Your task to perform on an android device: What is the recent news? Image 0: 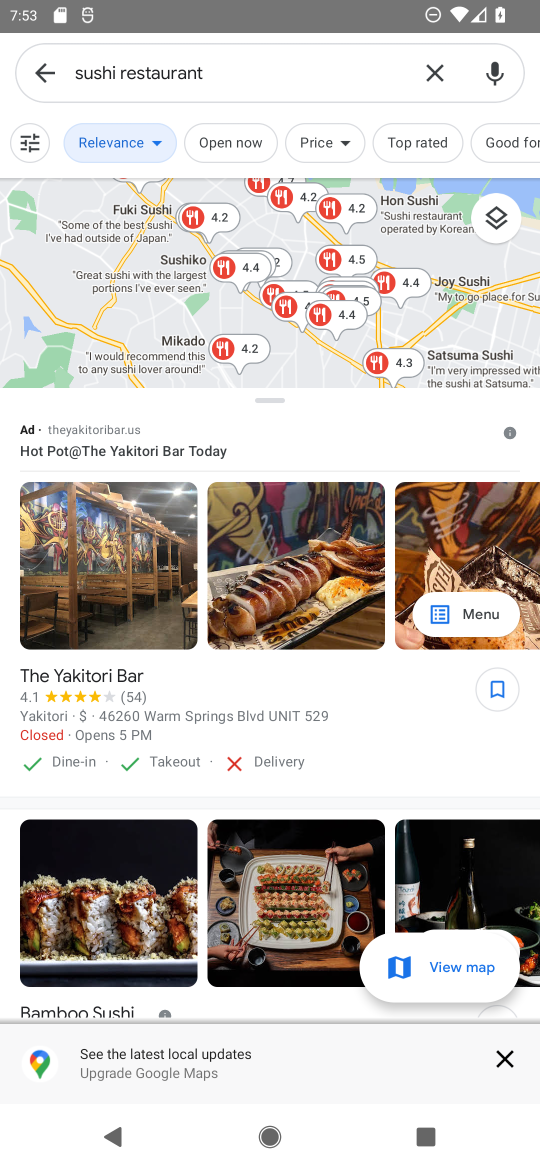
Step 0: press home button
Your task to perform on an android device: What is the recent news? Image 1: 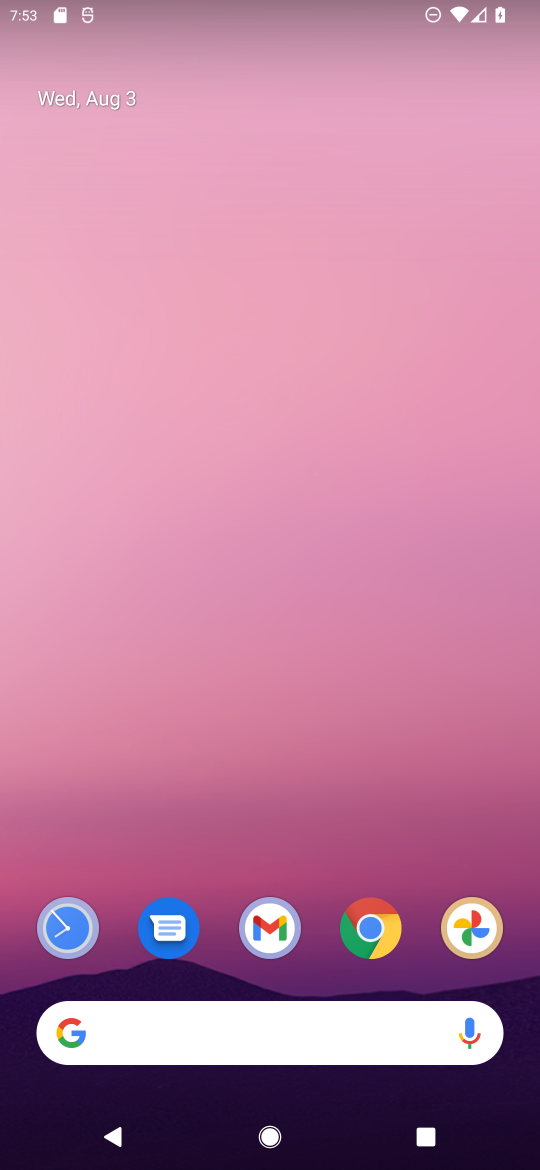
Step 1: click (359, 931)
Your task to perform on an android device: What is the recent news? Image 2: 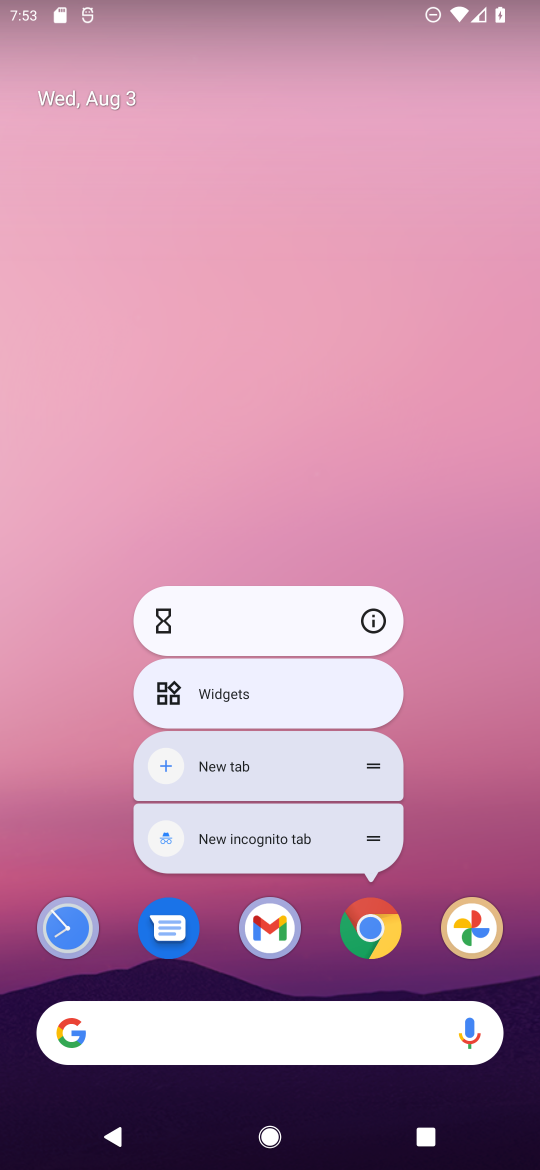
Step 2: click (359, 931)
Your task to perform on an android device: What is the recent news? Image 3: 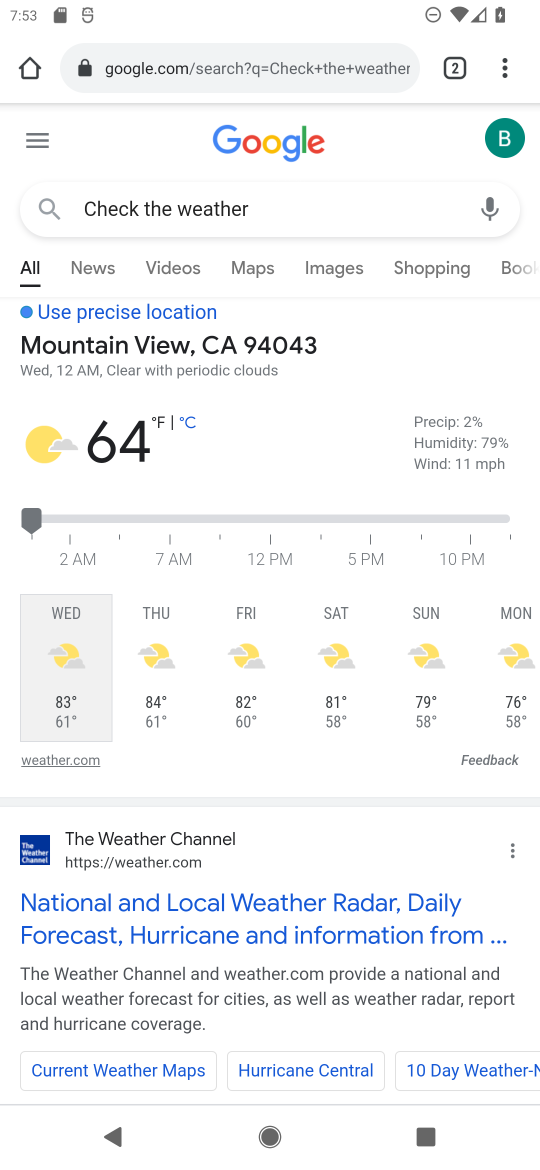
Step 3: click (268, 73)
Your task to perform on an android device: What is the recent news? Image 4: 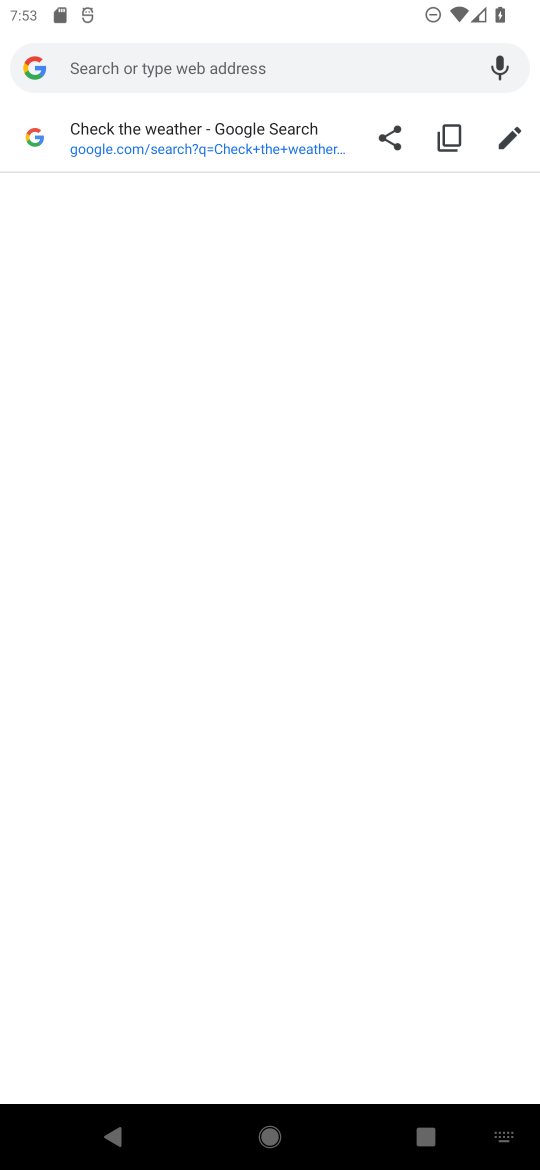
Step 4: type "What is the recent news?"
Your task to perform on an android device: What is the recent news? Image 5: 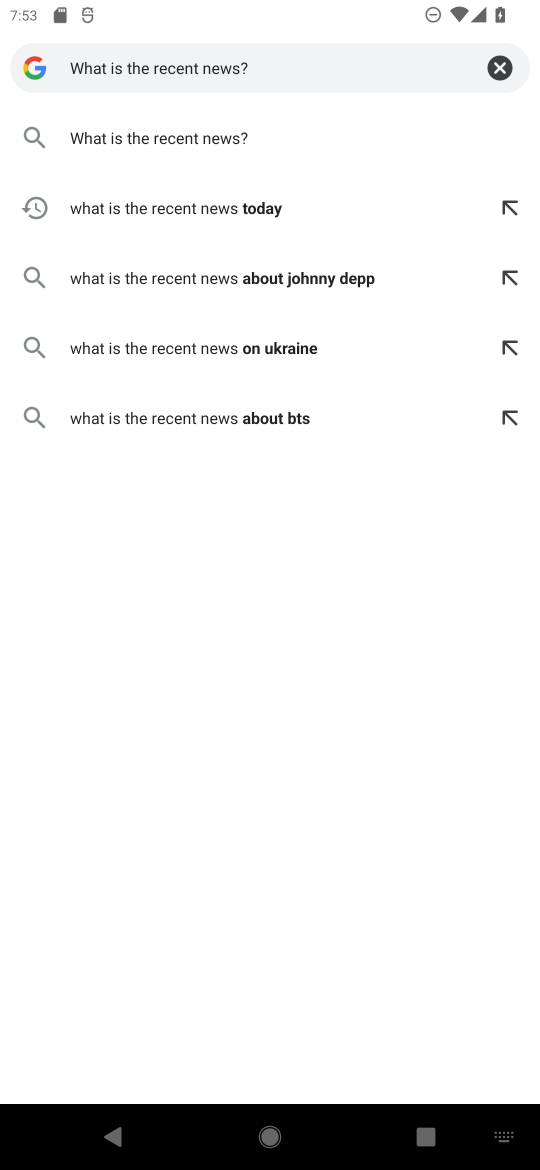
Step 5: click (354, 146)
Your task to perform on an android device: What is the recent news? Image 6: 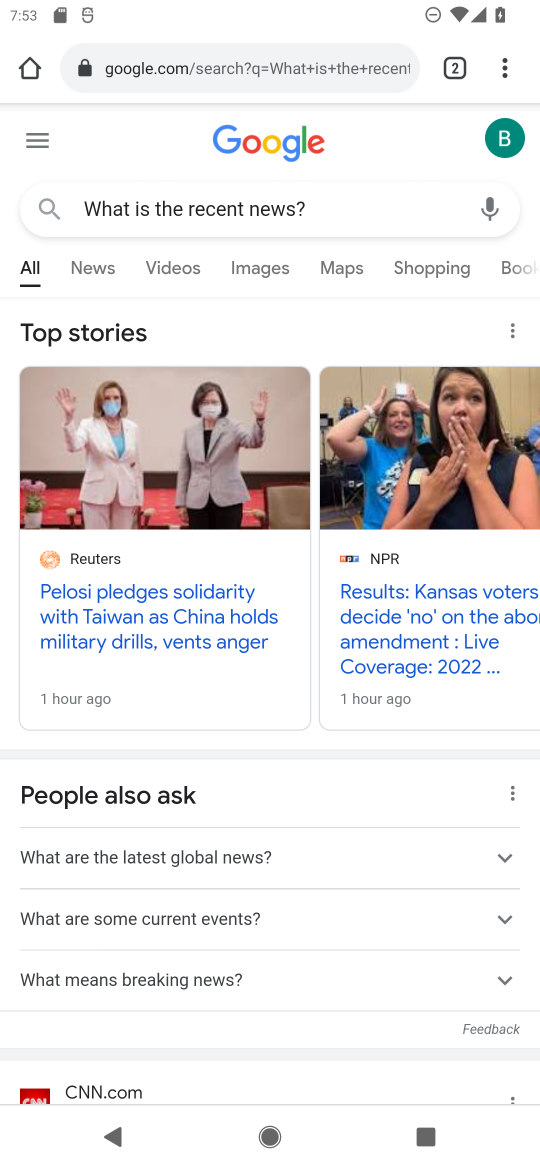
Step 6: task complete